Your task to perform on an android device: clear history in the chrome app Image 0: 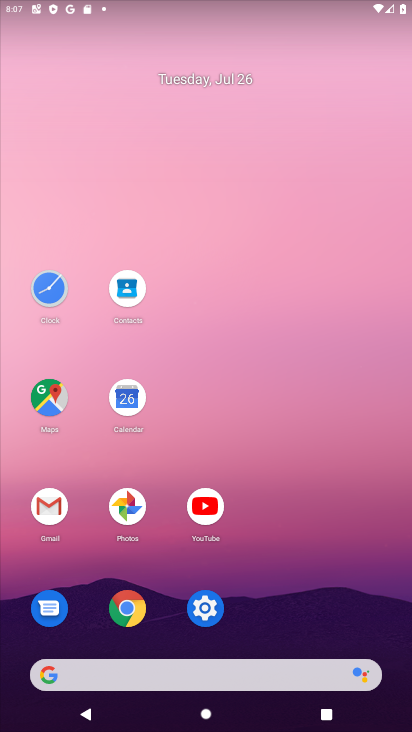
Step 0: click (124, 608)
Your task to perform on an android device: clear history in the chrome app Image 1: 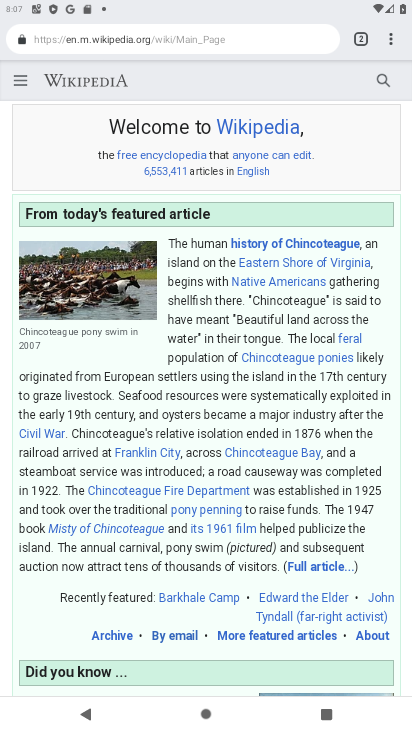
Step 1: click (395, 37)
Your task to perform on an android device: clear history in the chrome app Image 2: 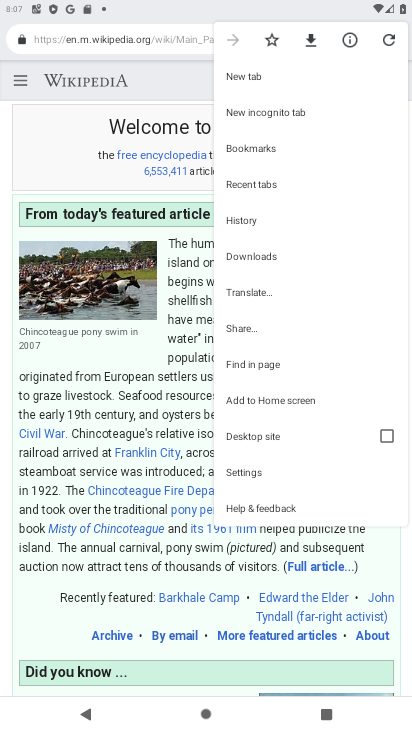
Step 2: click (244, 217)
Your task to perform on an android device: clear history in the chrome app Image 3: 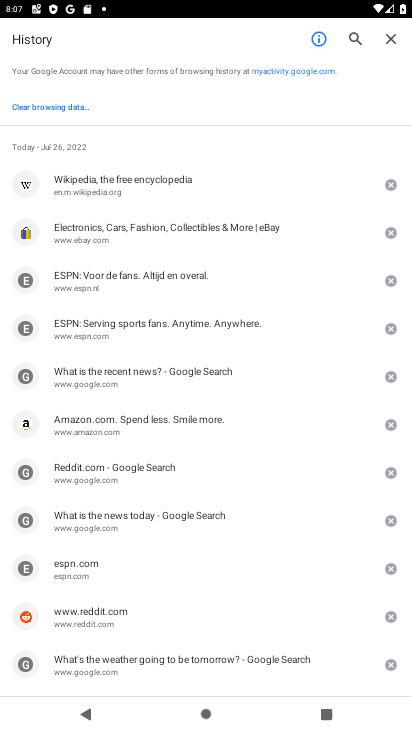
Step 3: click (48, 107)
Your task to perform on an android device: clear history in the chrome app Image 4: 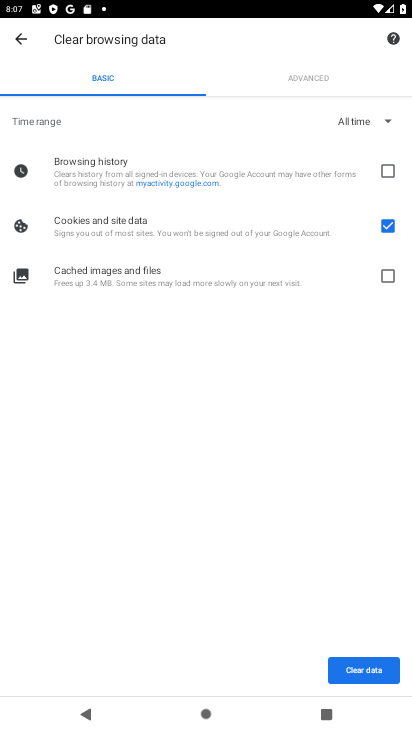
Step 4: click (384, 165)
Your task to perform on an android device: clear history in the chrome app Image 5: 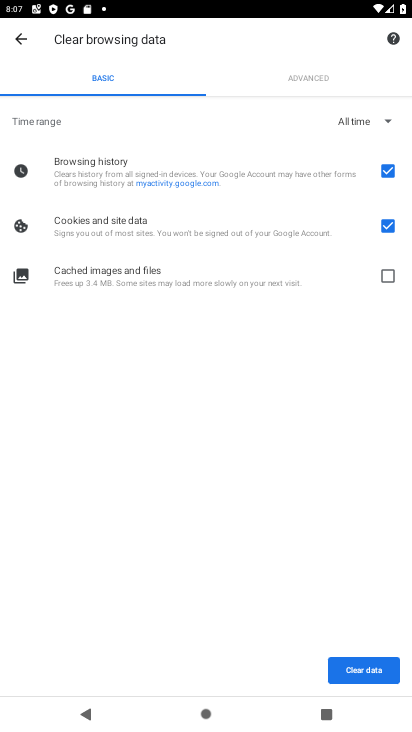
Step 5: click (383, 223)
Your task to perform on an android device: clear history in the chrome app Image 6: 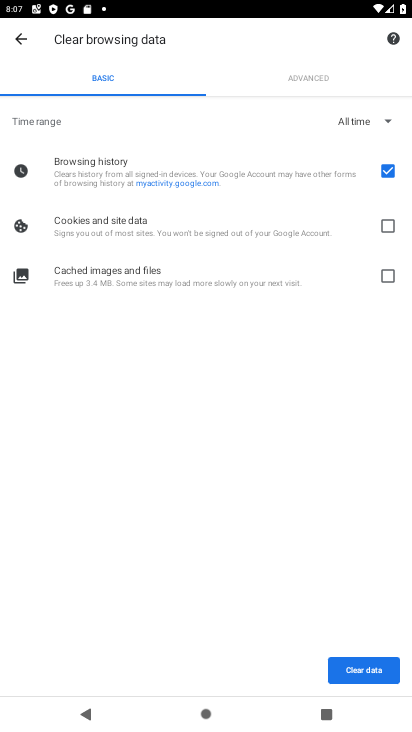
Step 6: click (367, 671)
Your task to perform on an android device: clear history in the chrome app Image 7: 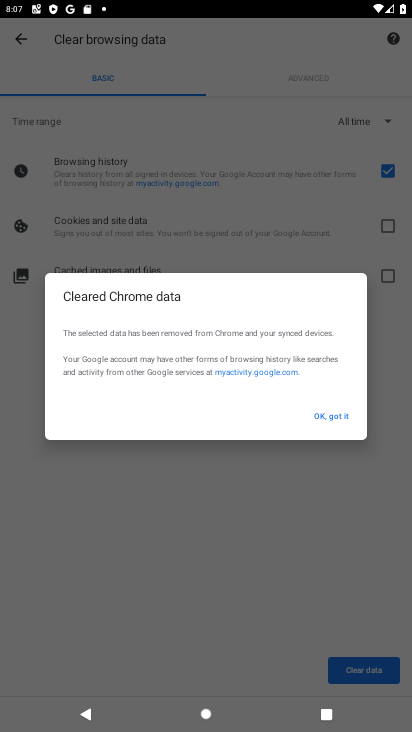
Step 7: click (329, 415)
Your task to perform on an android device: clear history in the chrome app Image 8: 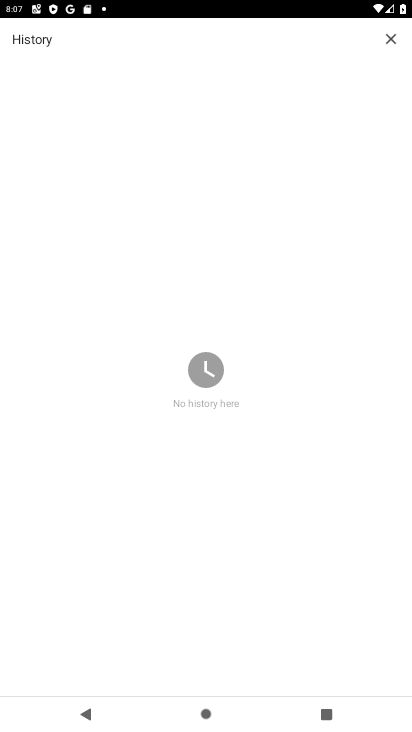
Step 8: task complete